Your task to perform on an android device: toggle data saver in the chrome app Image 0: 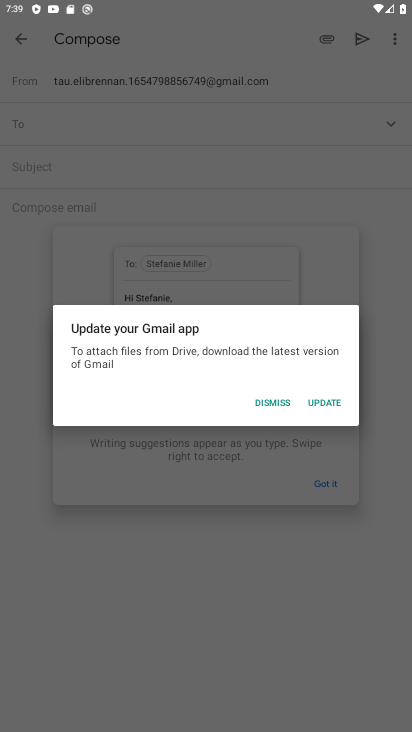
Step 0: press home button
Your task to perform on an android device: toggle data saver in the chrome app Image 1: 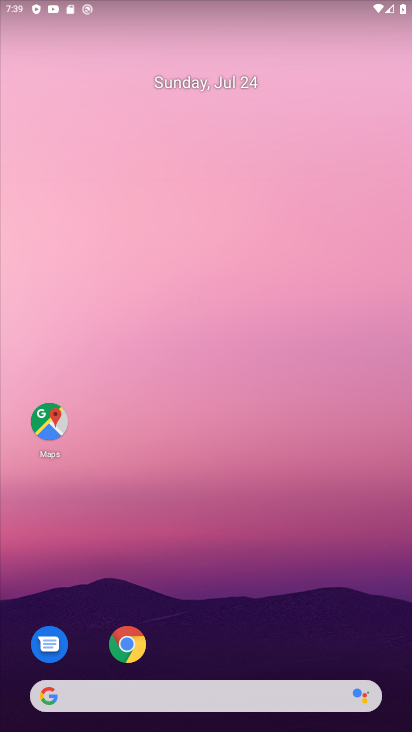
Step 1: click (124, 649)
Your task to perform on an android device: toggle data saver in the chrome app Image 2: 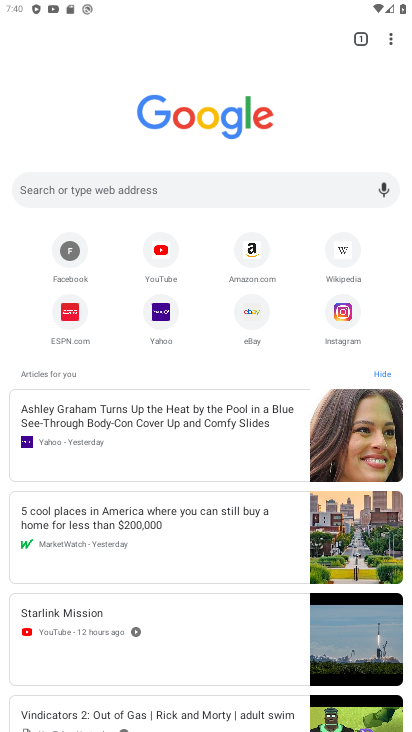
Step 2: click (388, 31)
Your task to perform on an android device: toggle data saver in the chrome app Image 3: 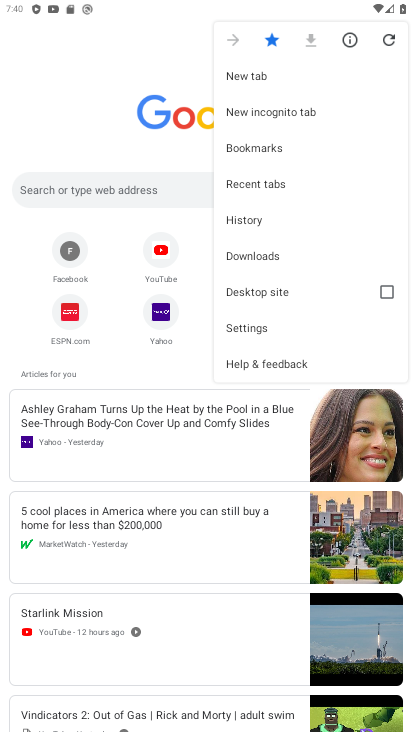
Step 3: click (260, 332)
Your task to perform on an android device: toggle data saver in the chrome app Image 4: 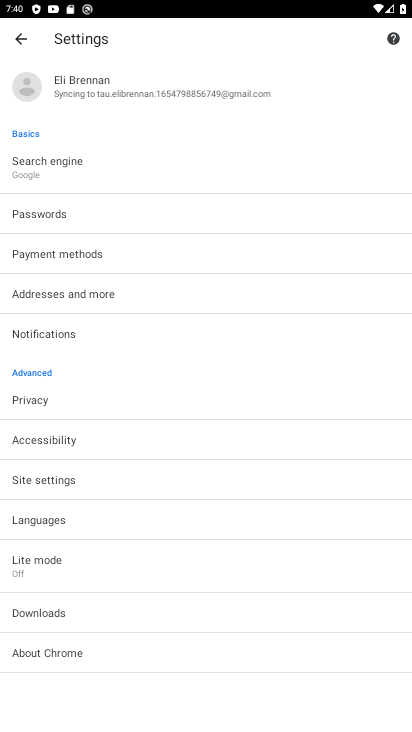
Step 4: click (41, 572)
Your task to perform on an android device: toggle data saver in the chrome app Image 5: 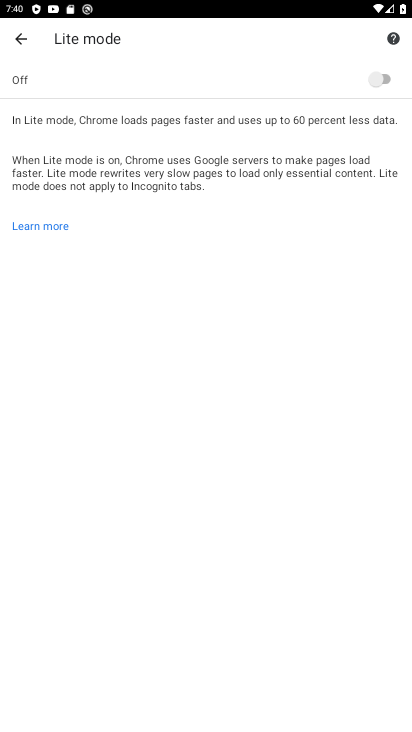
Step 5: click (394, 70)
Your task to perform on an android device: toggle data saver in the chrome app Image 6: 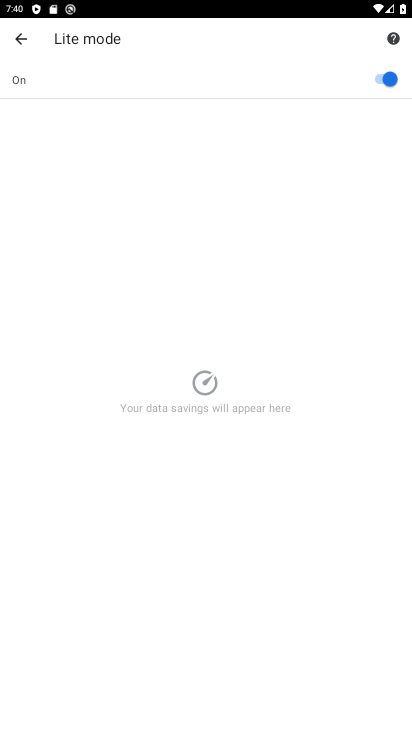
Step 6: task complete